Your task to perform on an android device: open the mobile data screen to see how much data has been used Image 0: 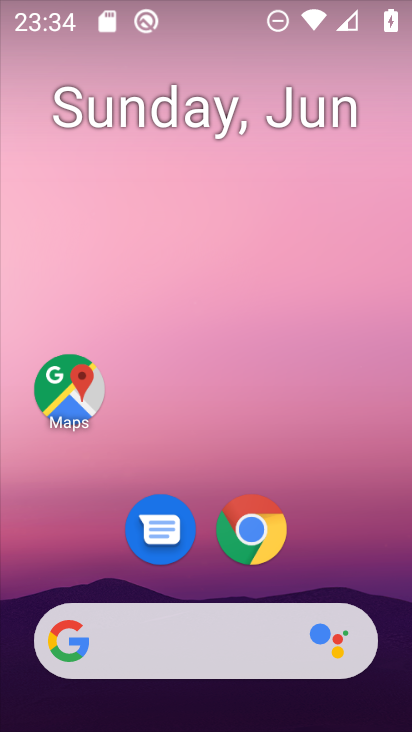
Step 0: drag from (398, 626) to (373, 102)
Your task to perform on an android device: open the mobile data screen to see how much data has been used Image 1: 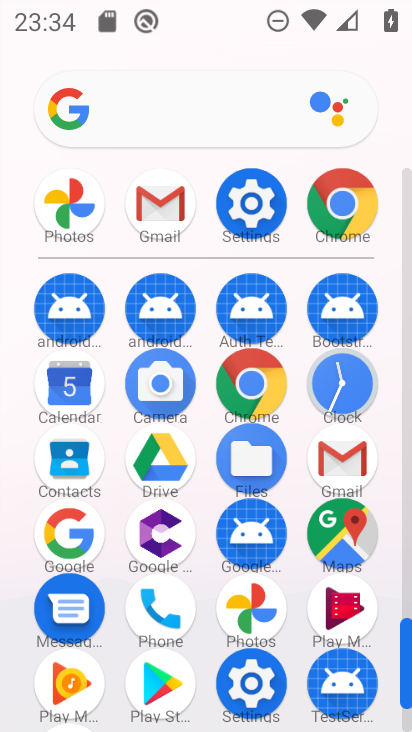
Step 1: click (248, 684)
Your task to perform on an android device: open the mobile data screen to see how much data has been used Image 2: 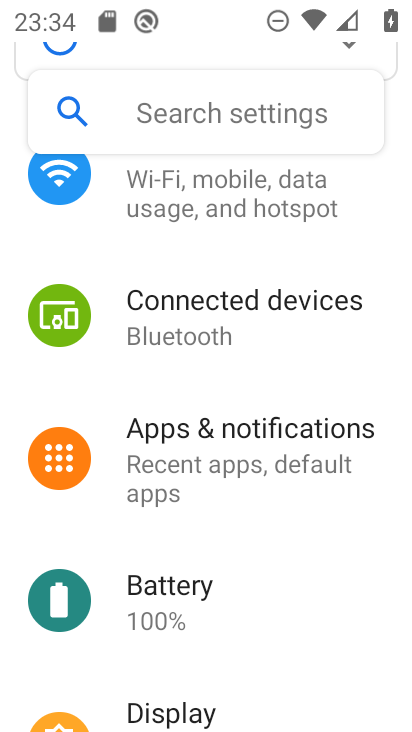
Step 2: click (225, 194)
Your task to perform on an android device: open the mobile data screen to see how much data has been used Image 3: 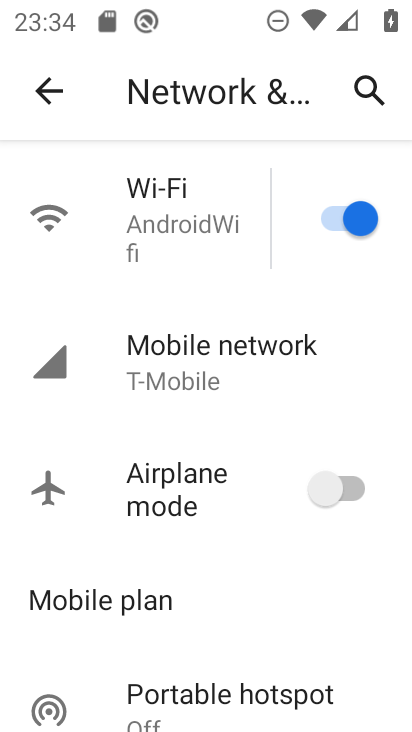
Step 3: click (214, 337)
Your task to perform on an android device: open the mobile data screen to see how much data has been used Image 4: 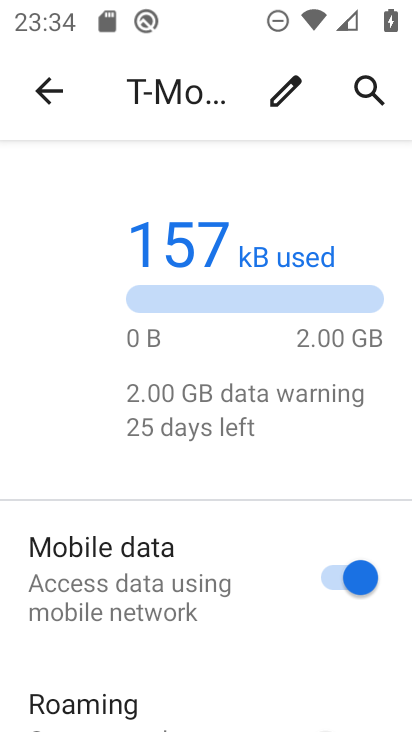
Step 4: task complete